Your task to perform on an android device: delete location history Image 0: 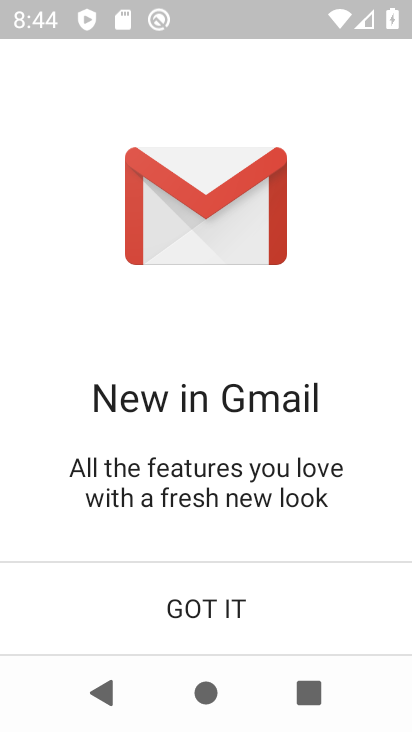
Step 0: press home button
Your task to perform on an android device: delete location history Image 1: 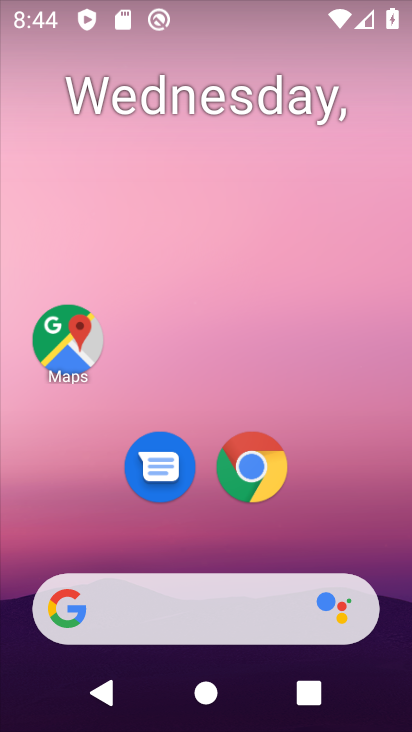
Step 1: drag from (322, 518) to (269, 79)
Your task to perform on an android device: delete location history Image 2: 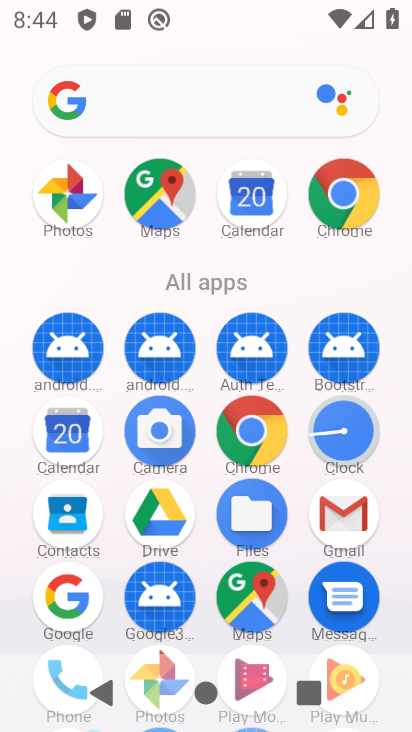
Step 2: click (162, 208)
Your task to perform on an android device: delete location history Image 3: 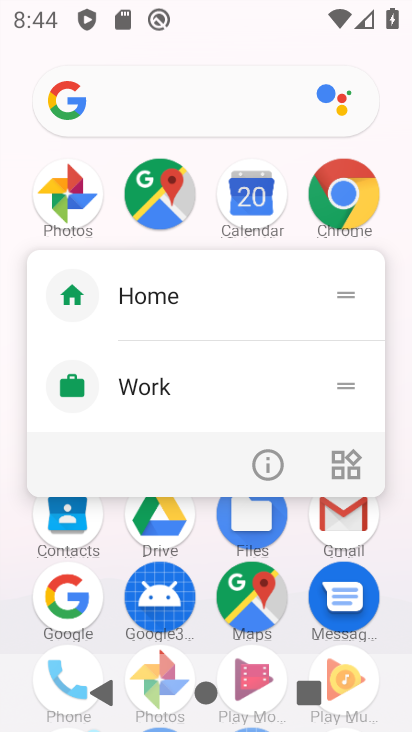
Step 3: click (162, 208)
Your task to perform on an android device: delete location history Image 4: 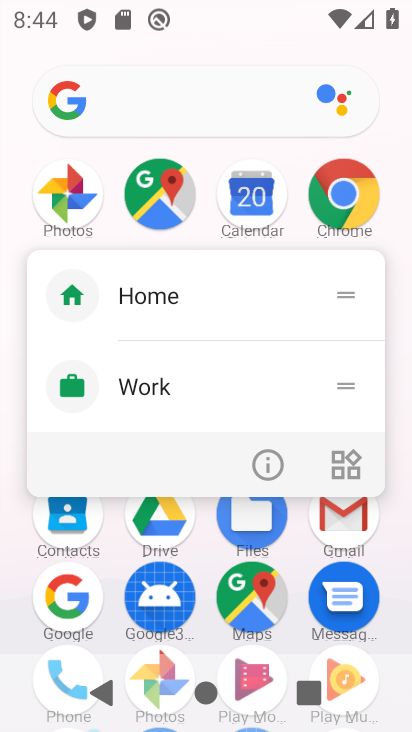
Step 4: click (264, 576)
Your task to perform on an android device: delete location history Image 5: 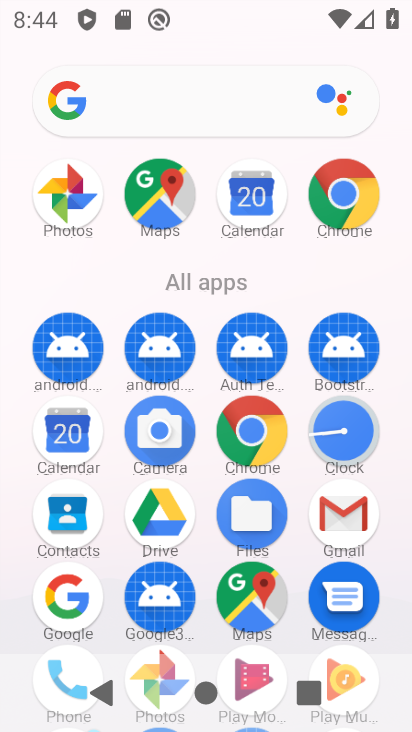
Step 5: click (158, 207)
Your task to perform on an android device: delete location history Image 6: 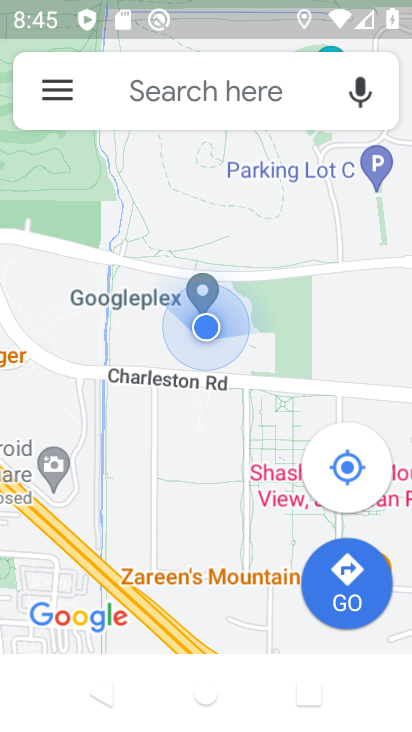
Step 6: click (45, 81)
Your task to perform on an android device: delete location history Image 7: 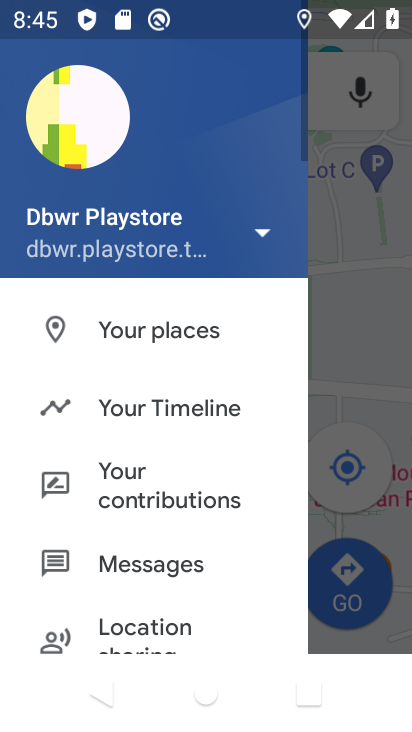
Step 7: drag from (103, 535) to (249, 43)
Your task to perform on an android device: delete location history Image 8: 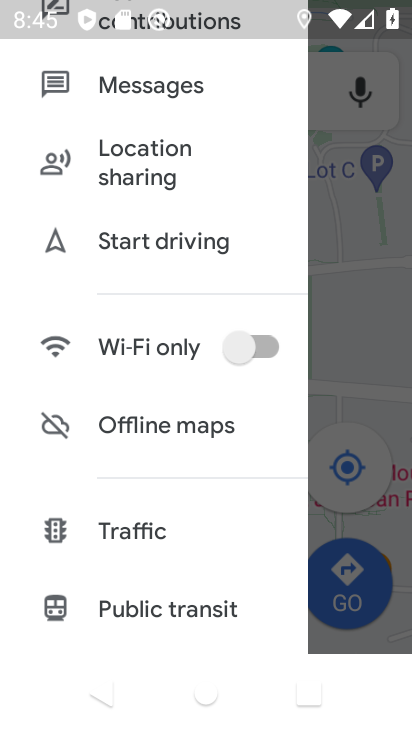
Step 8: drag from (158, 469) to (217, 74)
Your task to perform on an android device: delete location history Image 9: 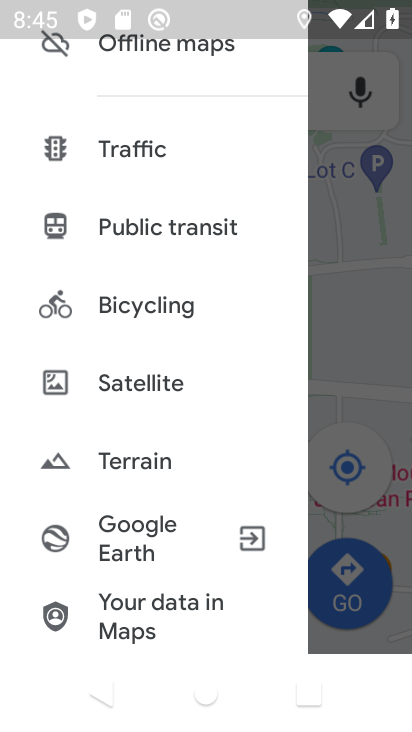
Step 9: drag from (178, 425) to (239, 75)
Your task to perform on an android device: delete location history Image 10: 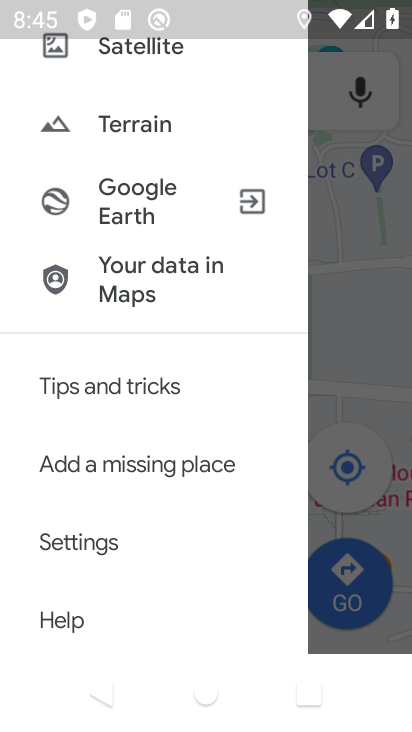
Step 10: click (105, 561)
Your task to perform on an android device: delete location history Image 11: 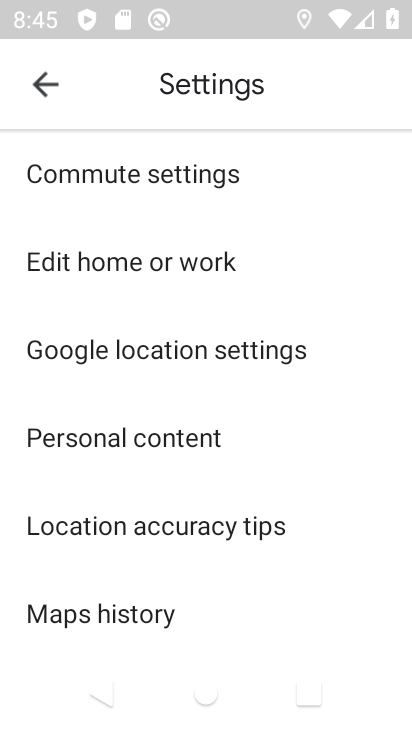
Step 11: drag from (125, 560) to (194, 158)
Your task to perform on an android device: delete location history Image 12: 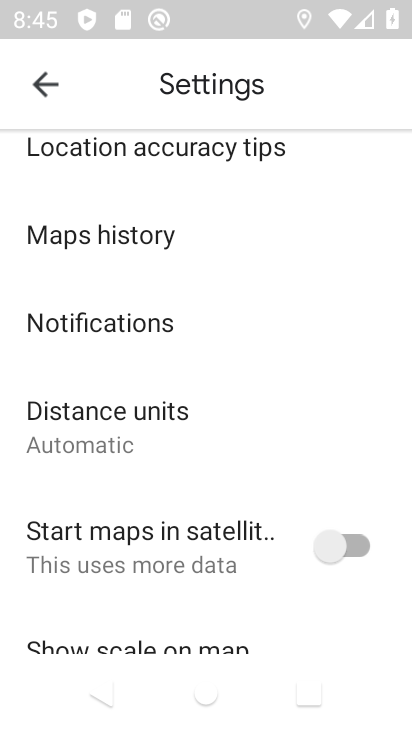
Step 12: click (127, 245)
Your task to perform on an android device: delete location history Image 13: 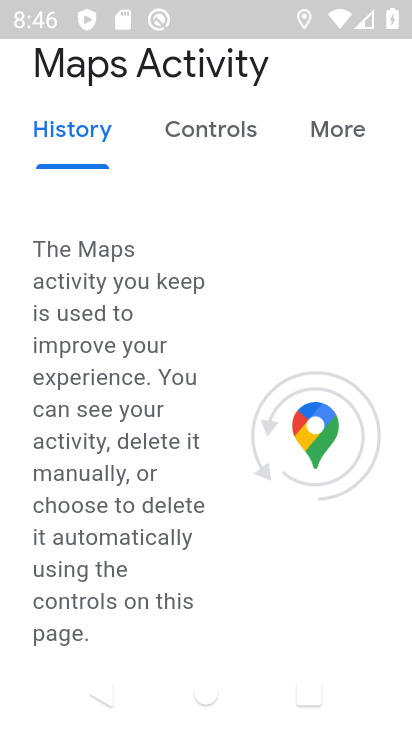
Step 13: drag from (183, 521) to (236, 63)
Your task to perform on an android device: delete location history Image 14: 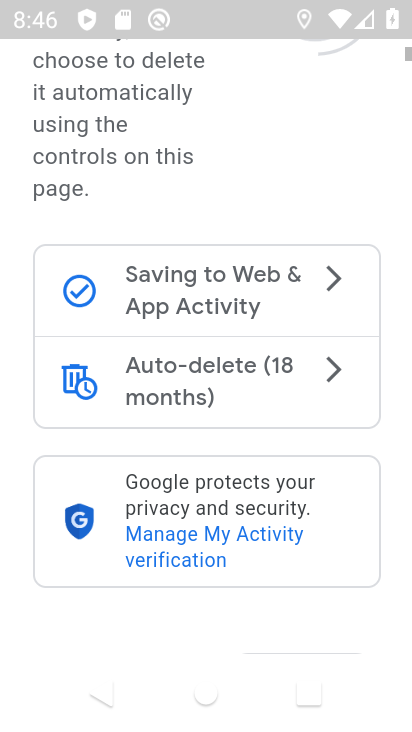
Step 14: drag from (235, 393) to (268, 163)
Your task to perform on an android device: delete location history Image 15: 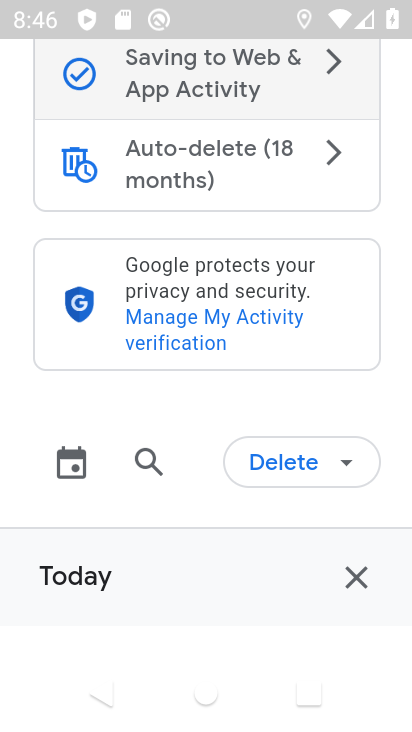
Step 15: click (283, 458)
Your task to perform on an android device: delete location history Image 16: 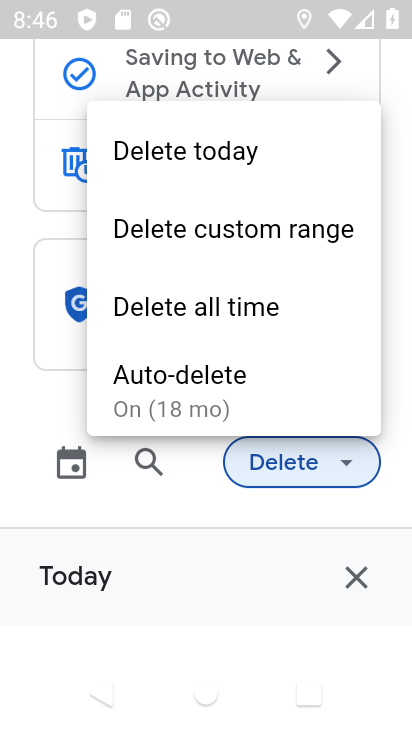
Step 16: click (226, 306)
Your task to perform on an android device: delete location history Image 17: 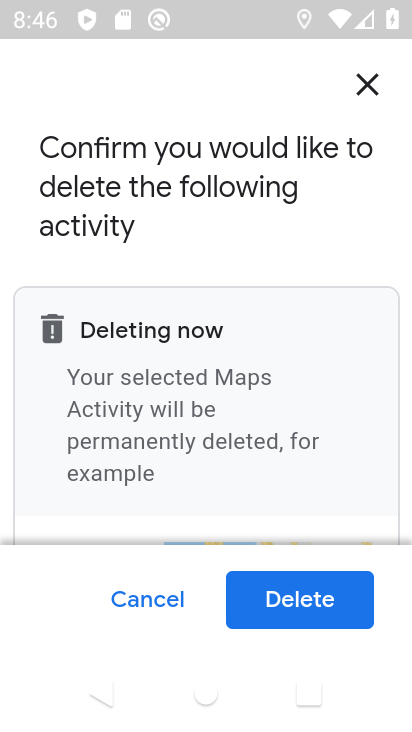
Step 17: click (280, 596)
Your task to perform on an android device: delete location history Image 18: 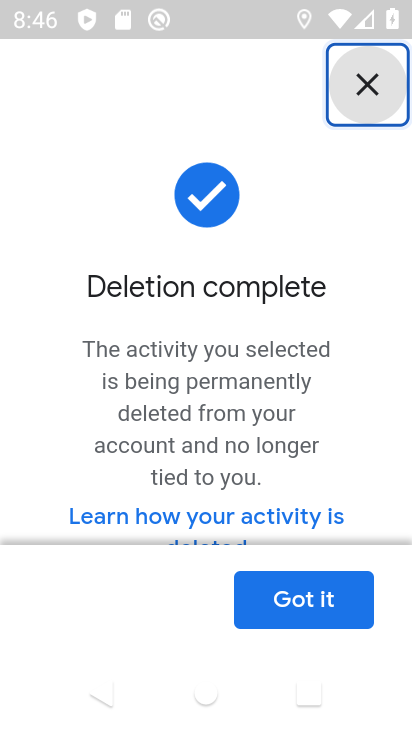
Step 18: click (306, 598)
Your task to perform on an android device: delete location history Image 19: 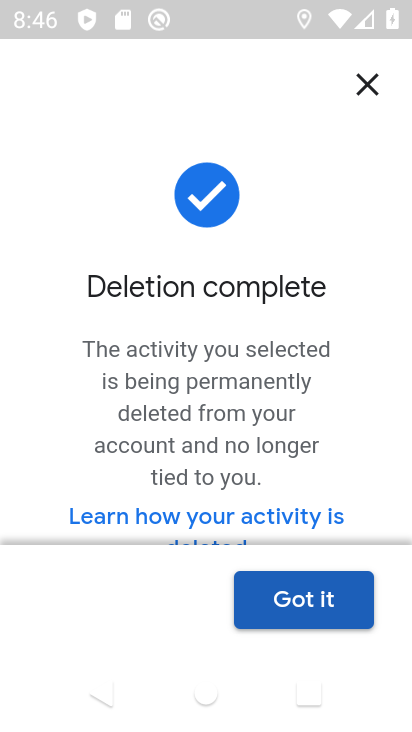
Step 19: task complete